Your task to perform on an android device: Go to ESPN.com Image 0: 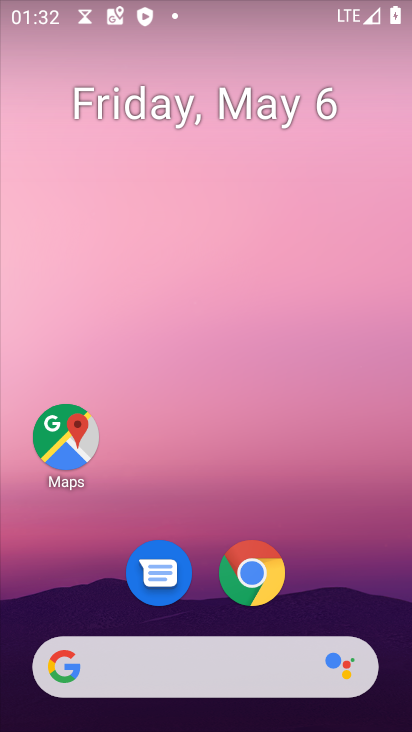
Step 0: drag from (338, 570) to (342, 322)
Your task to perform on an android device: Go to ESPN.com Image 1: 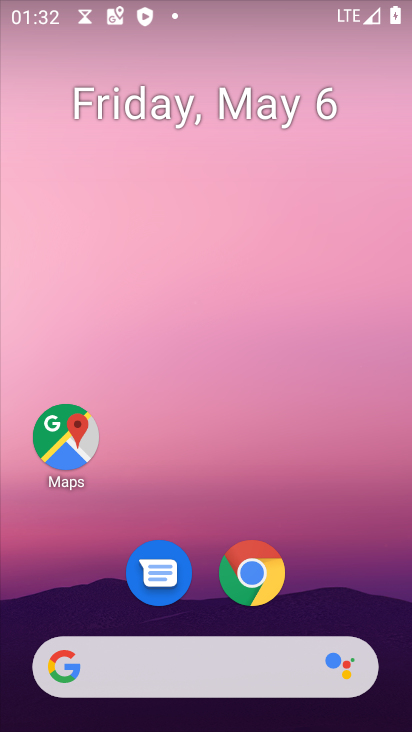
Step 1: drag from (306, 522) to (320, 254)
Your task to perform on an android device: Go to ESPN.com Image 2: 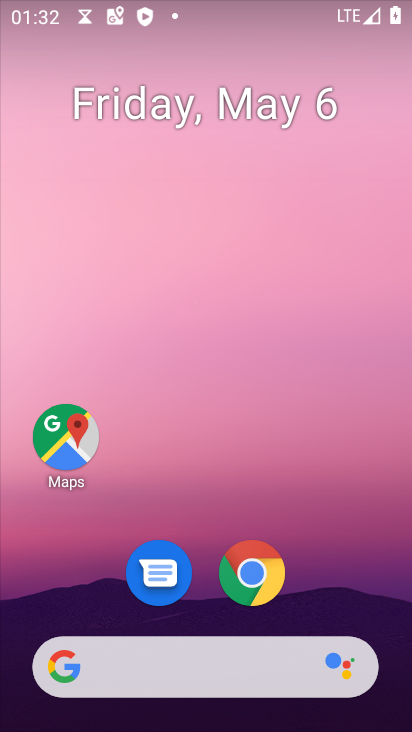
Step 2: drag from (323, 596) to (328, 246)
Your task to perform on an android device: Go to ESPN.com Image 3: 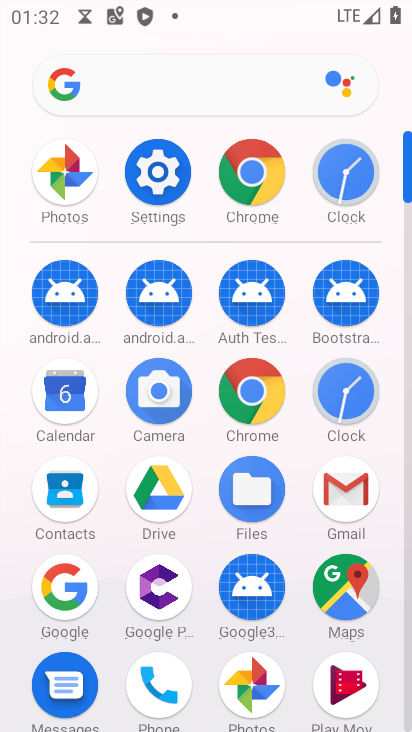
Step 3: click (253, 164)
Your task to perform on an android device: Go to ESPN.com Image 4: 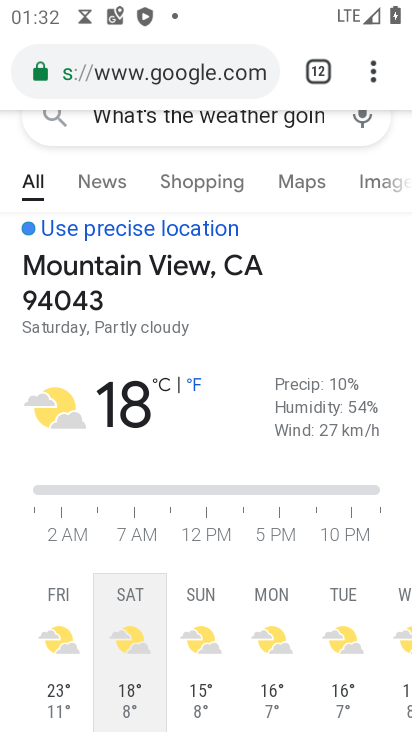
Step 4: click (355, 71)
Your task to perform on an android device: Go to ESPN.com Image 5: 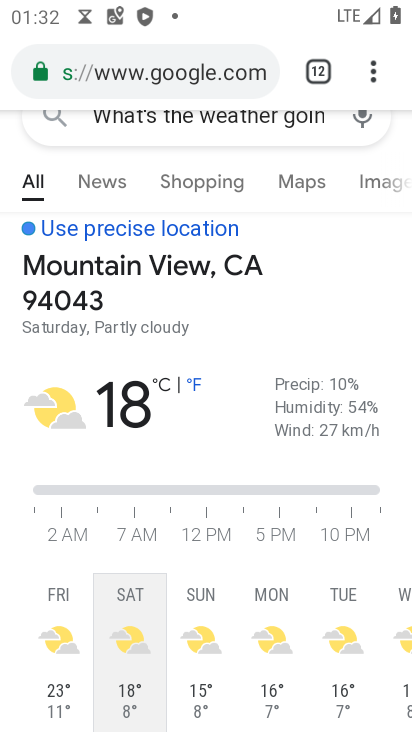
Step 5: click (351, 68)
Your task to perform on an android device: Go to ESPN.com Image 6: 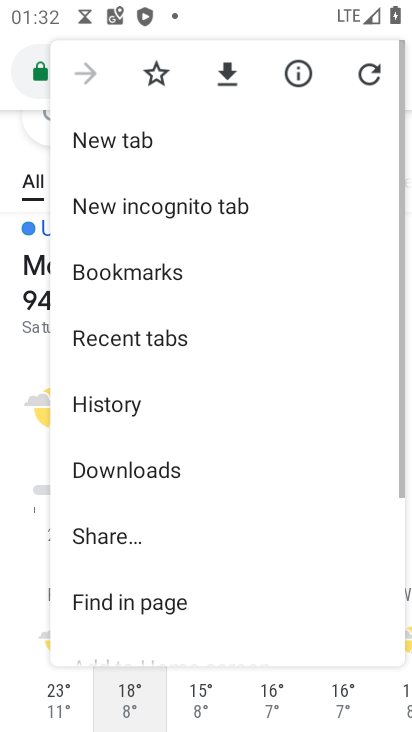
Step 6: click (136, 135)
Your task to perform on an android device: Go to ESPN.com Image 7: 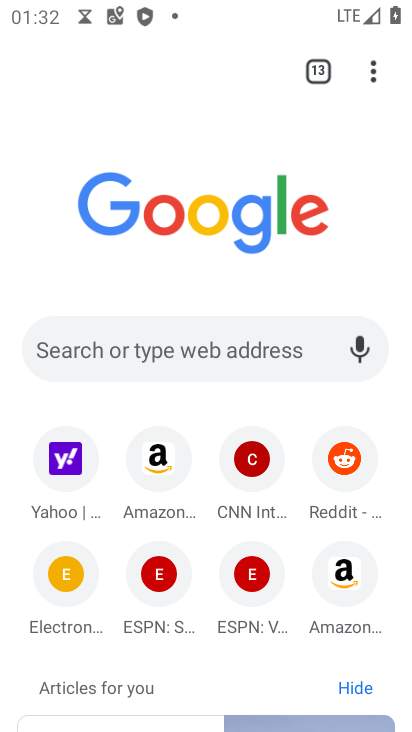
Step 7: click (254, 564)
Your task to perform on an android device: Go to ESPN.com Image 8: 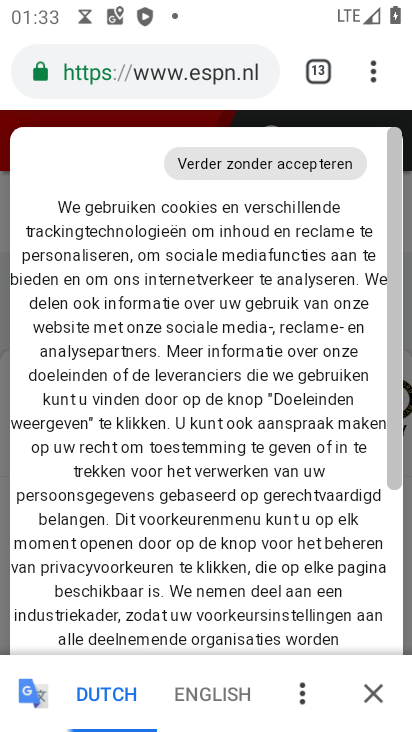
Step 8: click (364, 702)
Your task to perform on an android device: Go to ESPN.com Image 9: 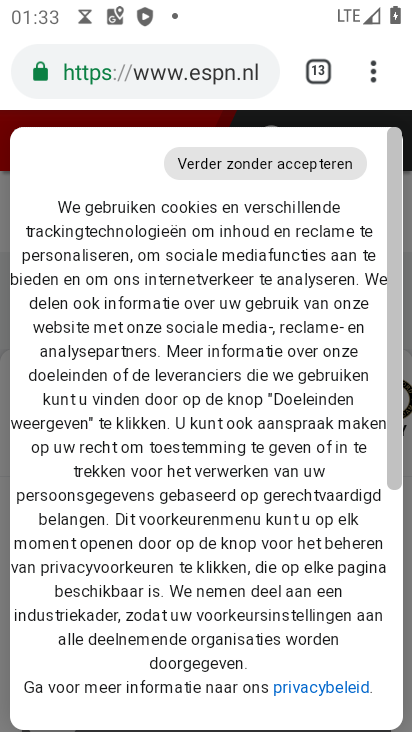
Step 9: press back button
Your task to perform on an android device: Go to ESPN.com Image 10: 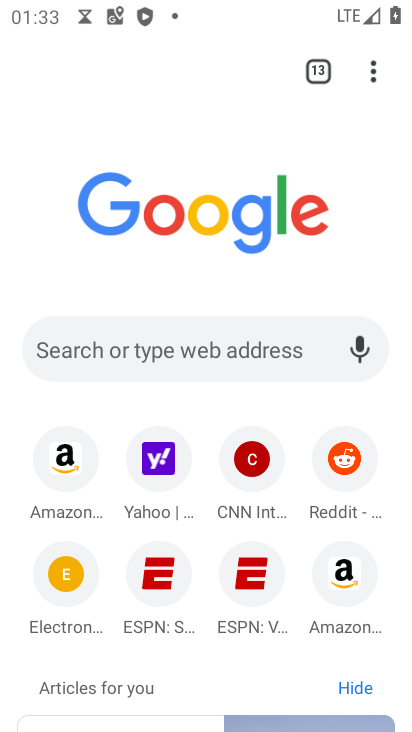
Step 10: click (259, 563)
Your task to perform on an android device: Go to ESPN.com Image 11: 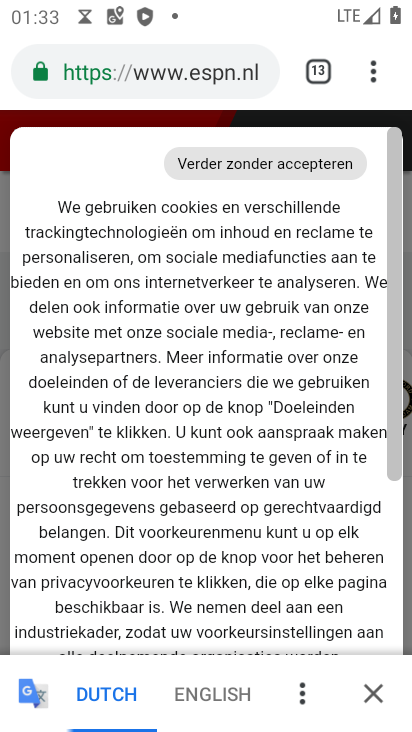
Step 11: task complete